Your task to perform on an android device: change the upload size in google photos Image 0: 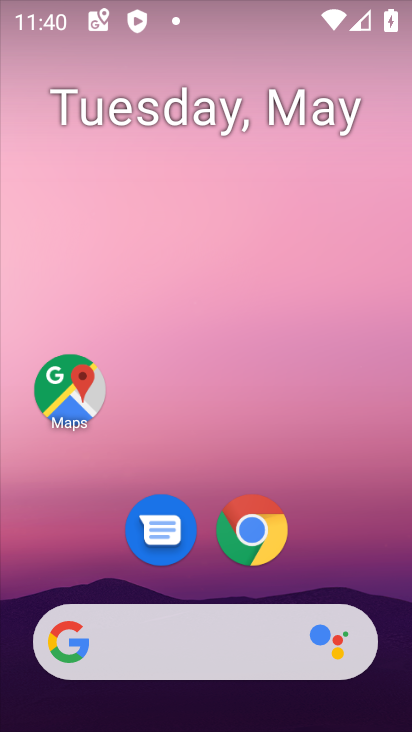
Step 0: drag from (203, 572) to (243, 87)
Your task to perform on an android device: change the upload size in google photos Image 1: 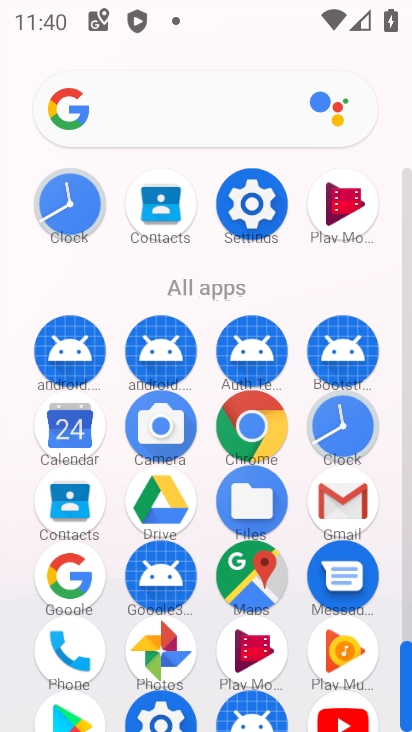
Step 1: click (153, 655)
Your task to perform on an android device: change the upload size in google photos Image 2: 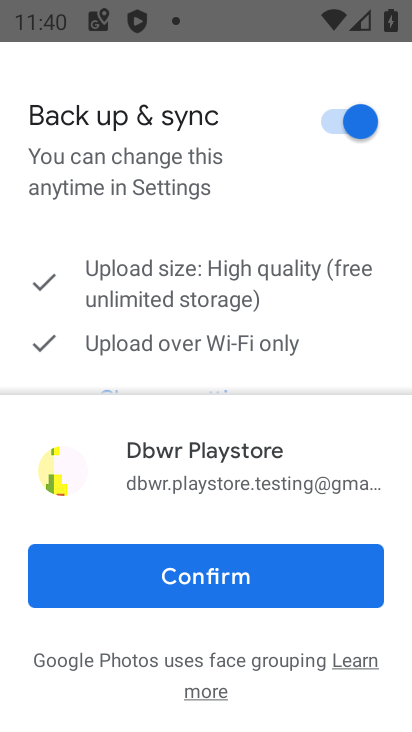
Step 2: click (219, 593)
Your task to perform on an android device: change the upload size in google photos Image 3: 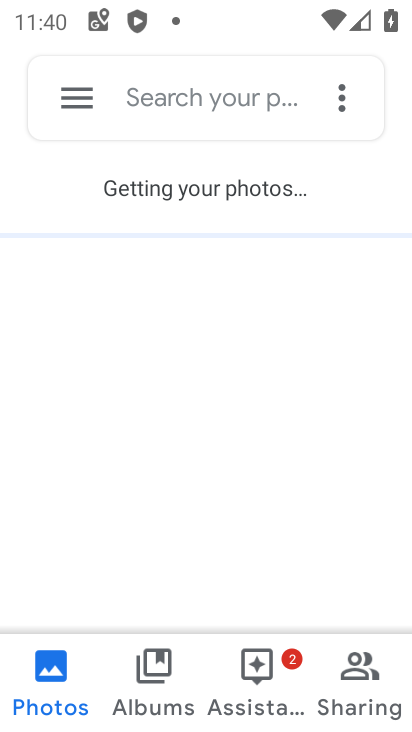
Step 3: click (67, 99)
Your task to perform on an android device: change the upload size in google photos Image 4: 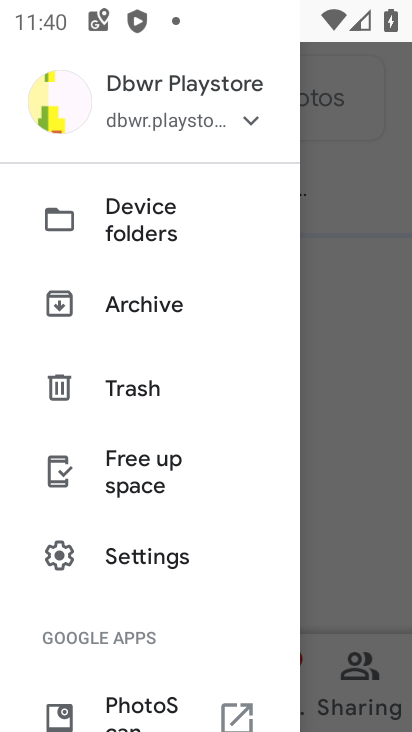
Step 4: click (148, 553)
Your task to perform on an android device: change the upload size in google photos Image 5: 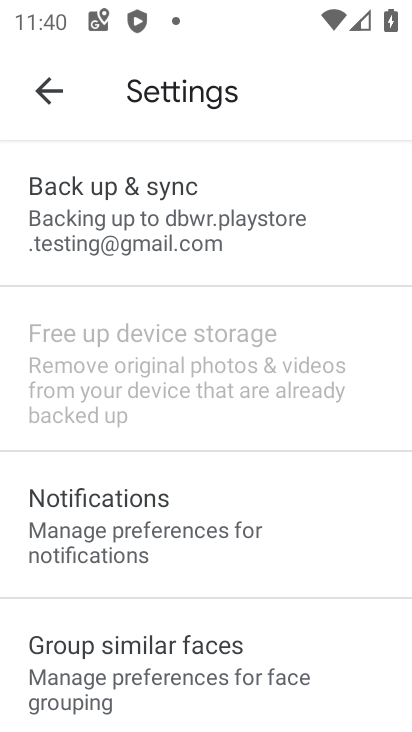
Step 5: click (121, 228)
Your task to perform on an android device: change the upload size in google photos Image 6: 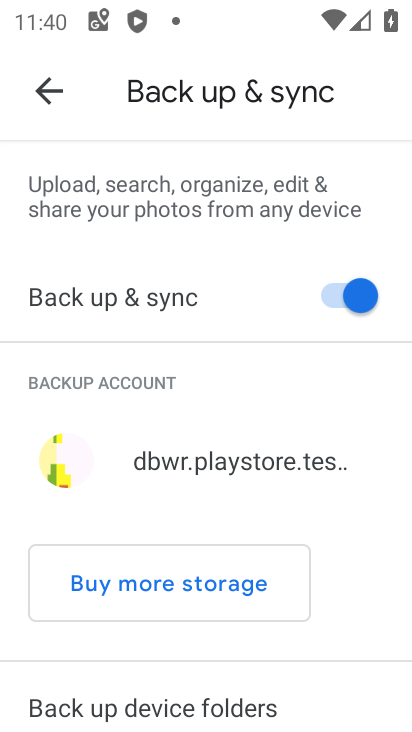
Step 6: drag from (257, 429) to (317, 145)
Your task to perform on an android device: change the upload size in google photos Image 7: 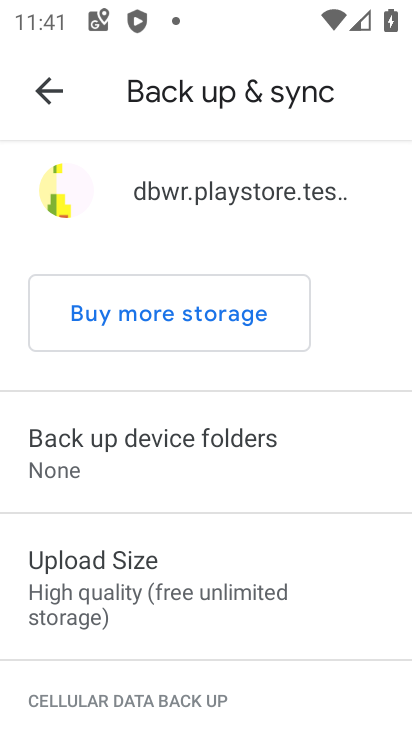
Step 7: click (90, 574)
Your task to perform on an android device: change the upload size in google photos Image 8: 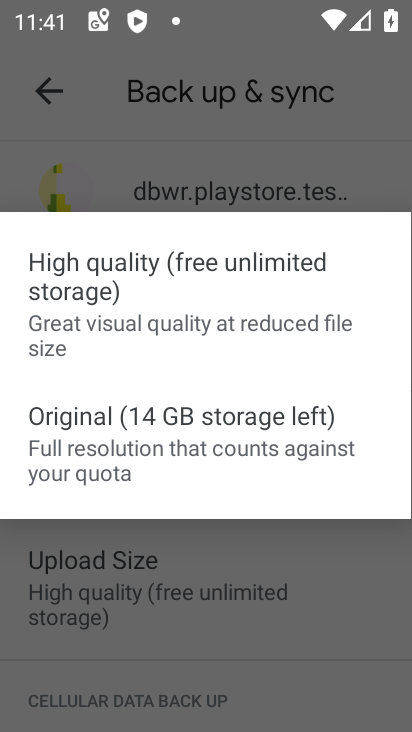
Step 8: task complete